Your task to perform on an android device: What's the weather going to be tomorrow? Image 0: 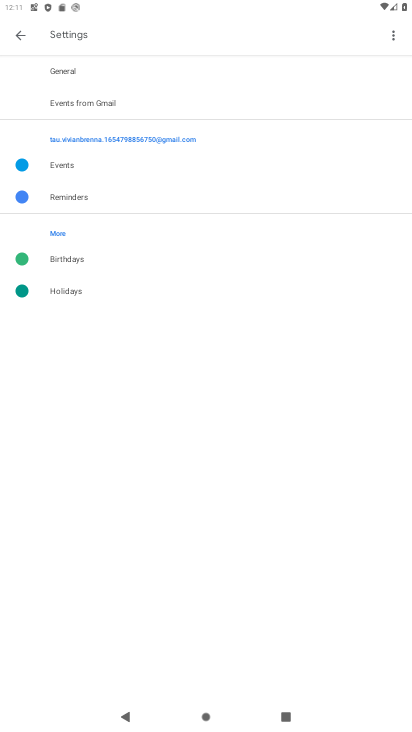
Step 0: press home button
Your task to perform on an android device: What's the weather going to be tomorrow? Image 1: 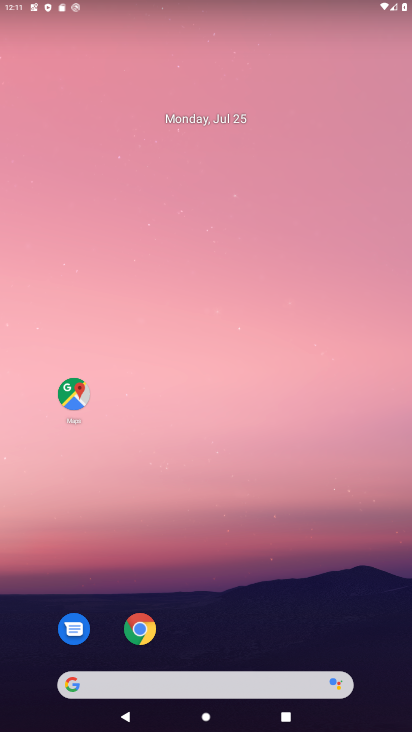
Step 1: click (145, 630)
Your task to perform on an android device: What's the weather going to be tomorrow? Image 2: 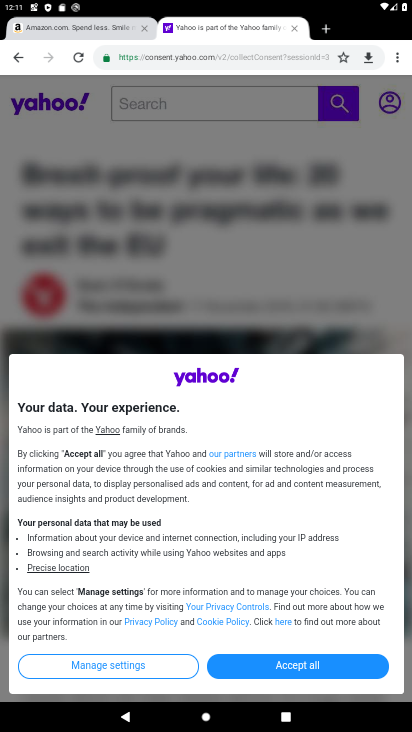
Step 2: click (177, 56)
Your task to perform on an android device: What's the weather going to be tomorrow? Image 3: 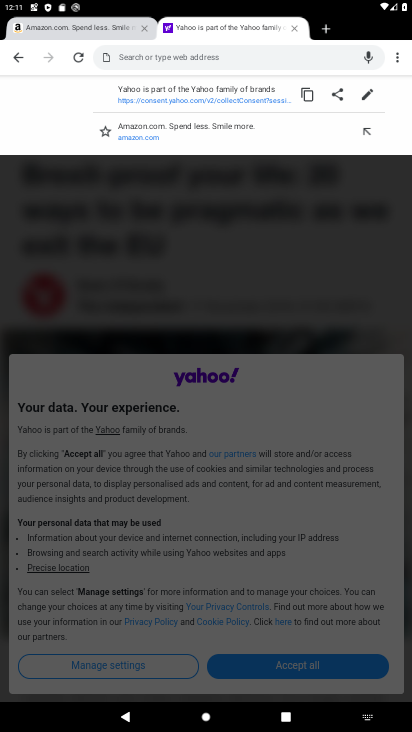
Step 3: type "What's the weather going to be tomorrow?"
Your task to perform on an android device: What's the weather going to be tomorrow? Image 4: 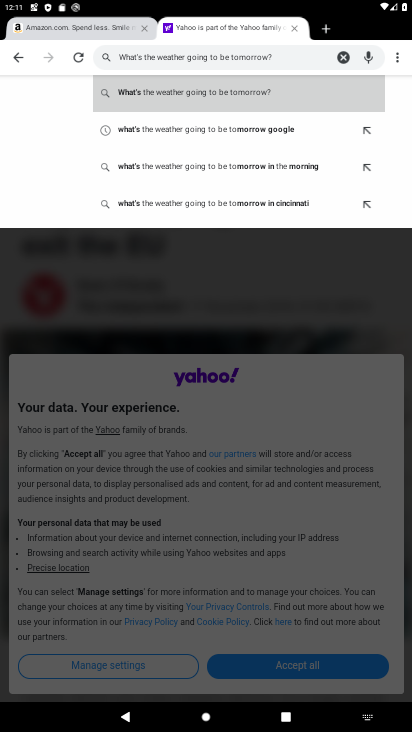
Step 4: click (240, 91)
Your task to perform on an android device: What's the weather going to be tomorrow? Image 5: 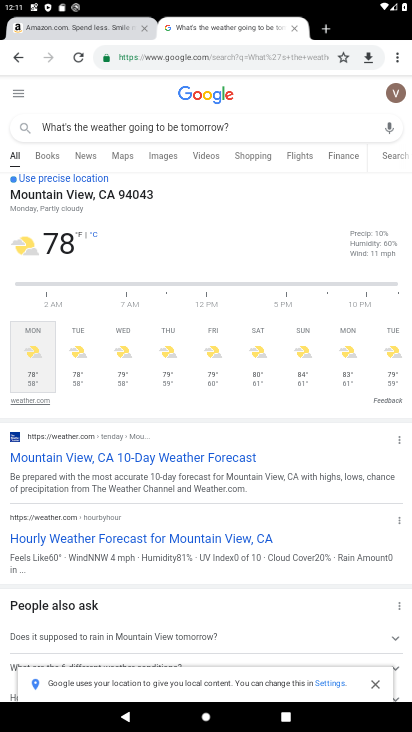
Step 5: task complete